Your task to perform on an android device: Go to Reddit.com Image 0: 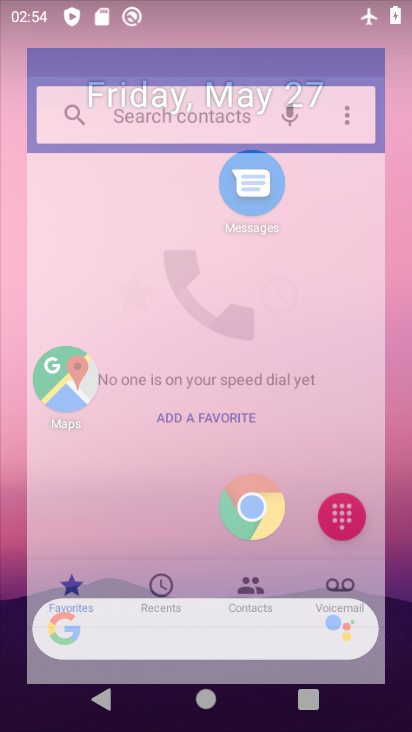
Step 0: drag from (191, 545) to (173, 89)
Your task to perform on an android device: Go to Reddit.com Image 1: 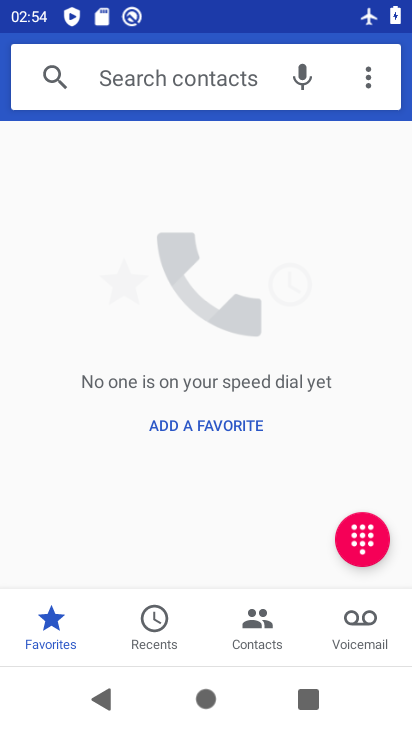
Step 1: press home button
Your task to perform on an android device: Go to Reddit.com Image 2: 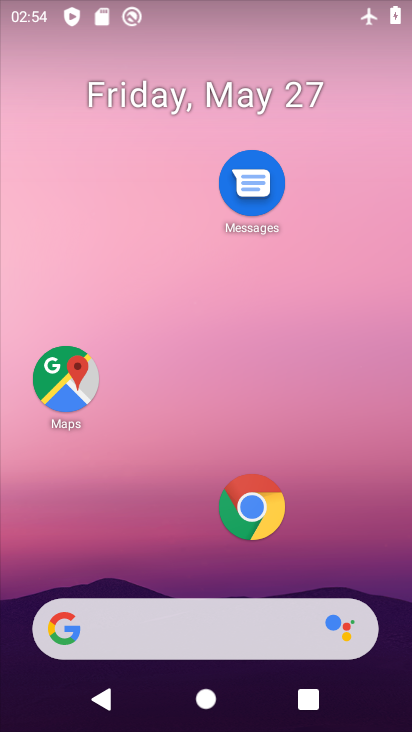
Step 2: drag from (206, 558) to (206, 321)
Your task to perform on an android device: Go to Reddit.com Image 3: 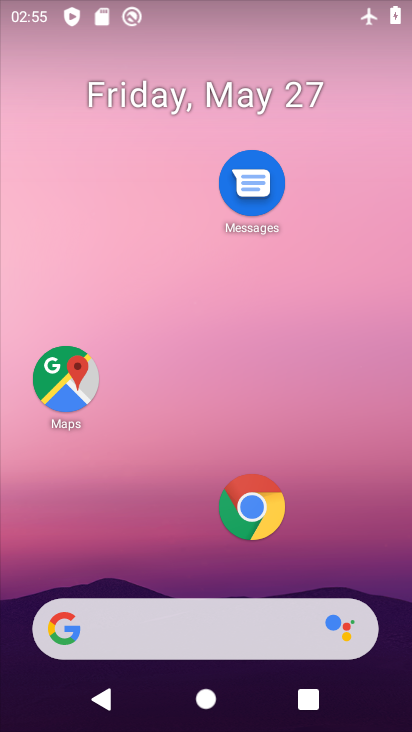
Step 3: click (256, 504)
Your task to perform on an android device: Go to Reddit.com Image 4: 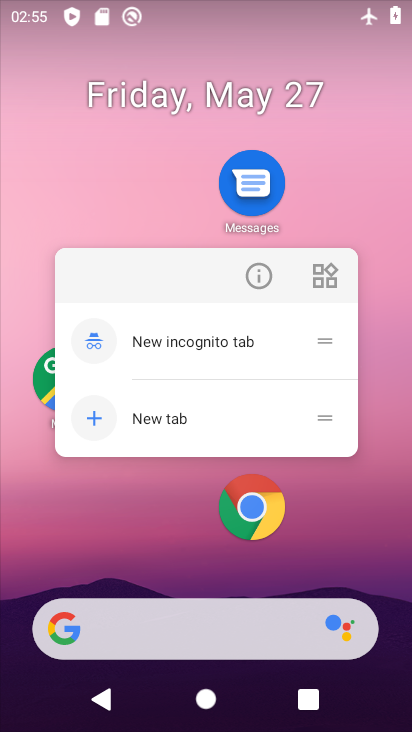
Step 4: click (258, 267)
Your task to perform on an android device: Go to Reddit.com Image 5: 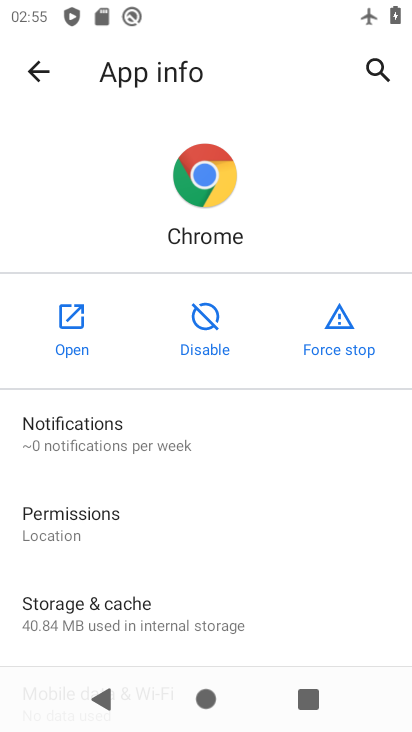
Step 5: click (75, 328)
Your task to perform on an android device: Go to Reddit.com Image 6: 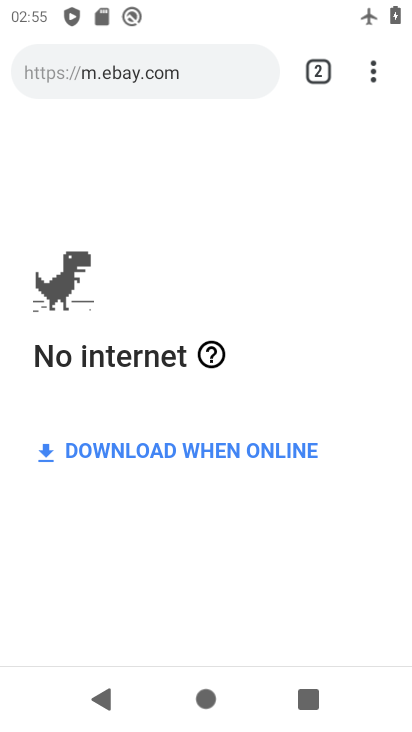
Step 6: task complete